Your task to perform on an android device: Open the calendar and show me this week's events Image 0: 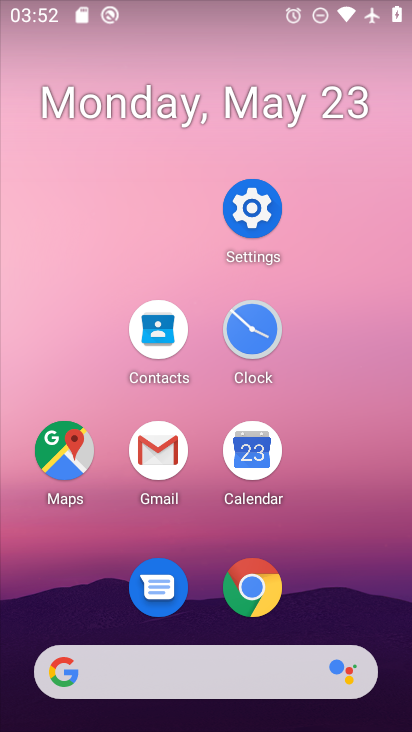
Step 0: click (273, 466)
Your task to perform on an android device: Open the calendar and show me this week's events Image 1: 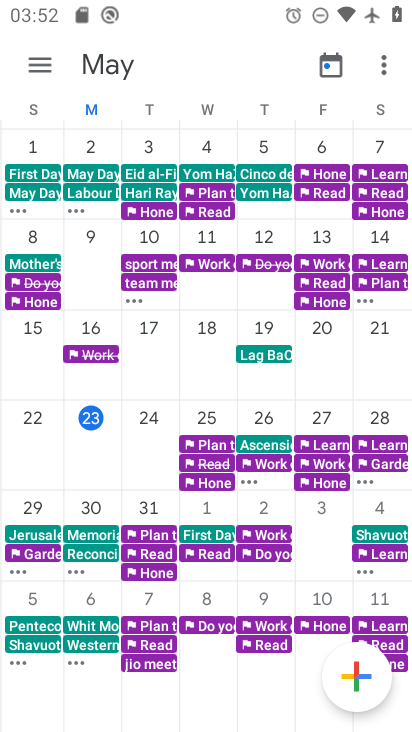
Step 1: task complete